Your task to perform on an android device: Open the map Image 0: 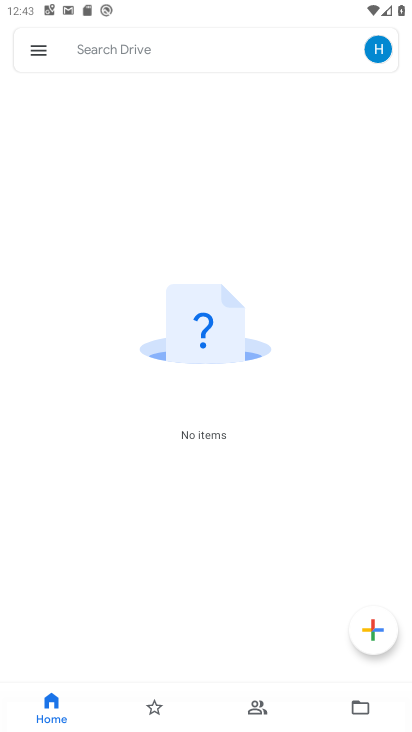
Step 0: press home button
Your task to perform on an android device: Open the map Image 1: 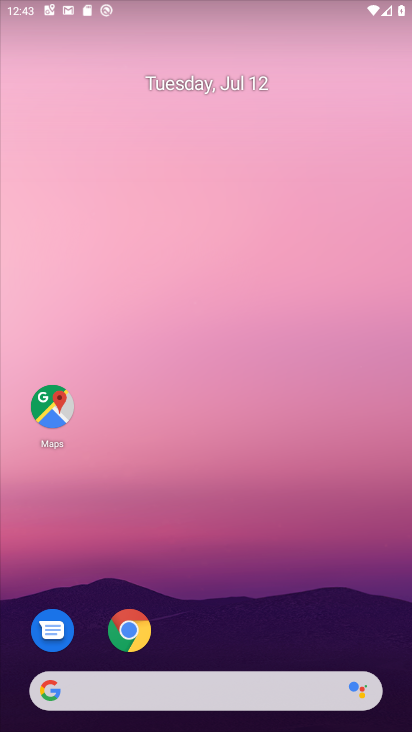
Step 1: drag from (247, 602) to (304, 233)
Your task to perform on an android device: Open the map Image 2: 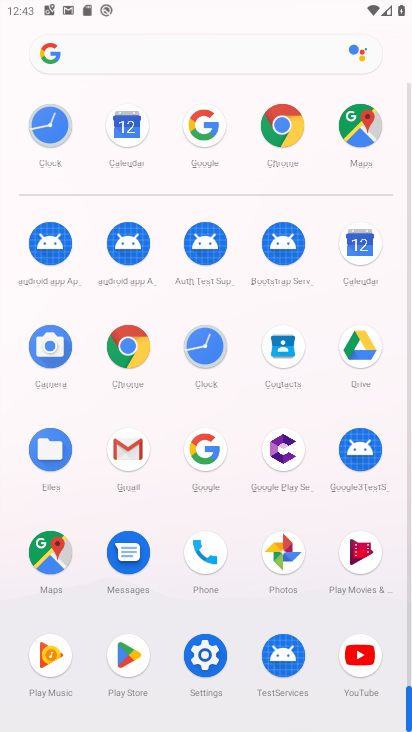
Step 2: click (39, 574)
Your task to perform on an android device: Open the map Image 3: 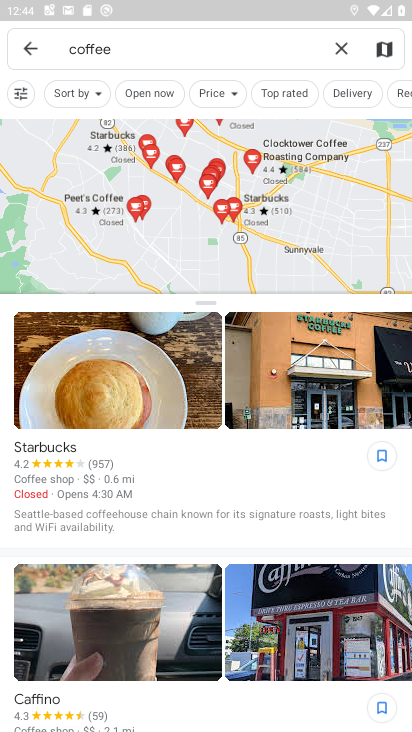
Step 3: task complete